Your task to perform on an android device: Open Amazon Image 0: 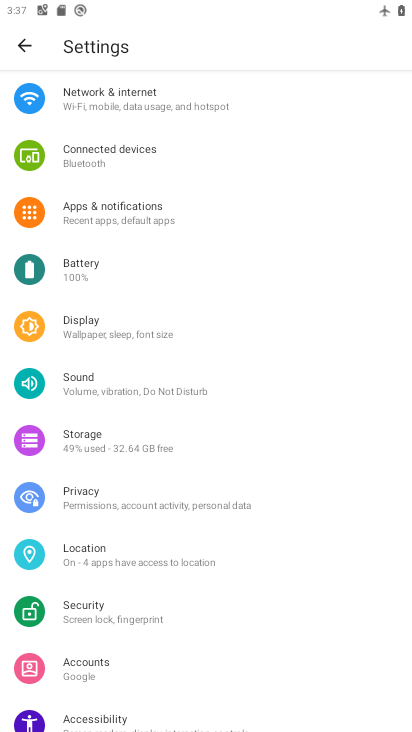
Step 0: press home button
Your task to perform on an android device: Open Amazon Image 1: 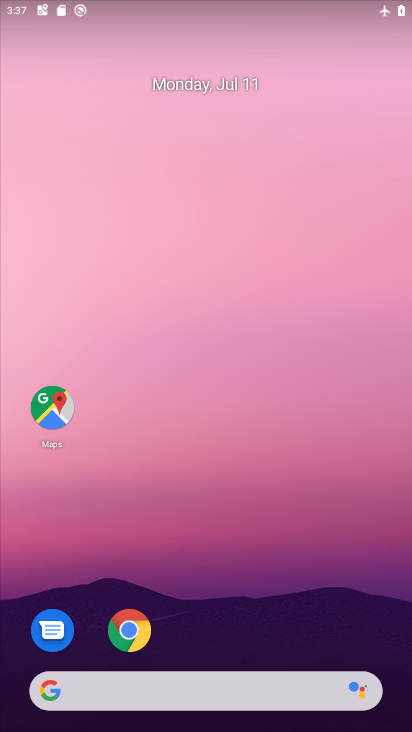
Step 1: drag from (320, 629) to (240, 126)
Your task to perform on an android device: Open Amazon Image 2: 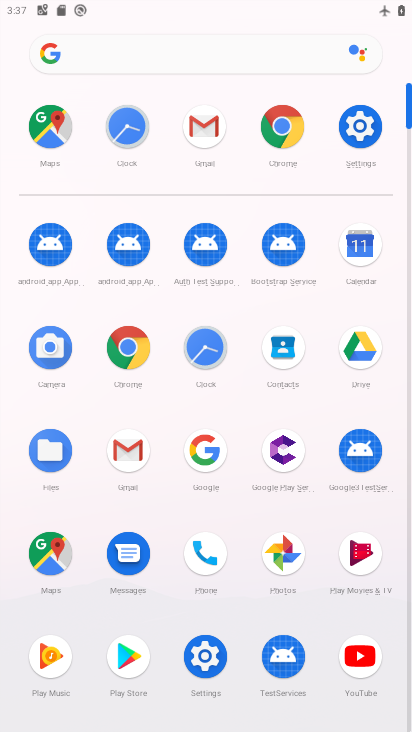
Step 2: click (293, 120)
Your task to perform on an android device: Open Amazon Image 3: 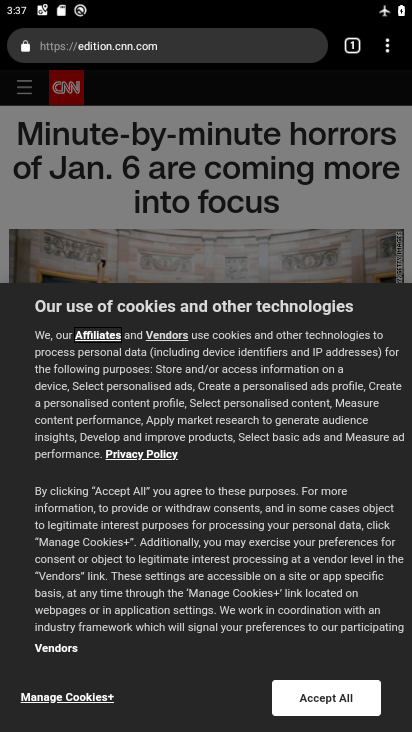
Step 3: task complete